Your task to perform on an android device: Search for "apple airpods pro" on target, select the first entry, and add it to the cart. Image 0: 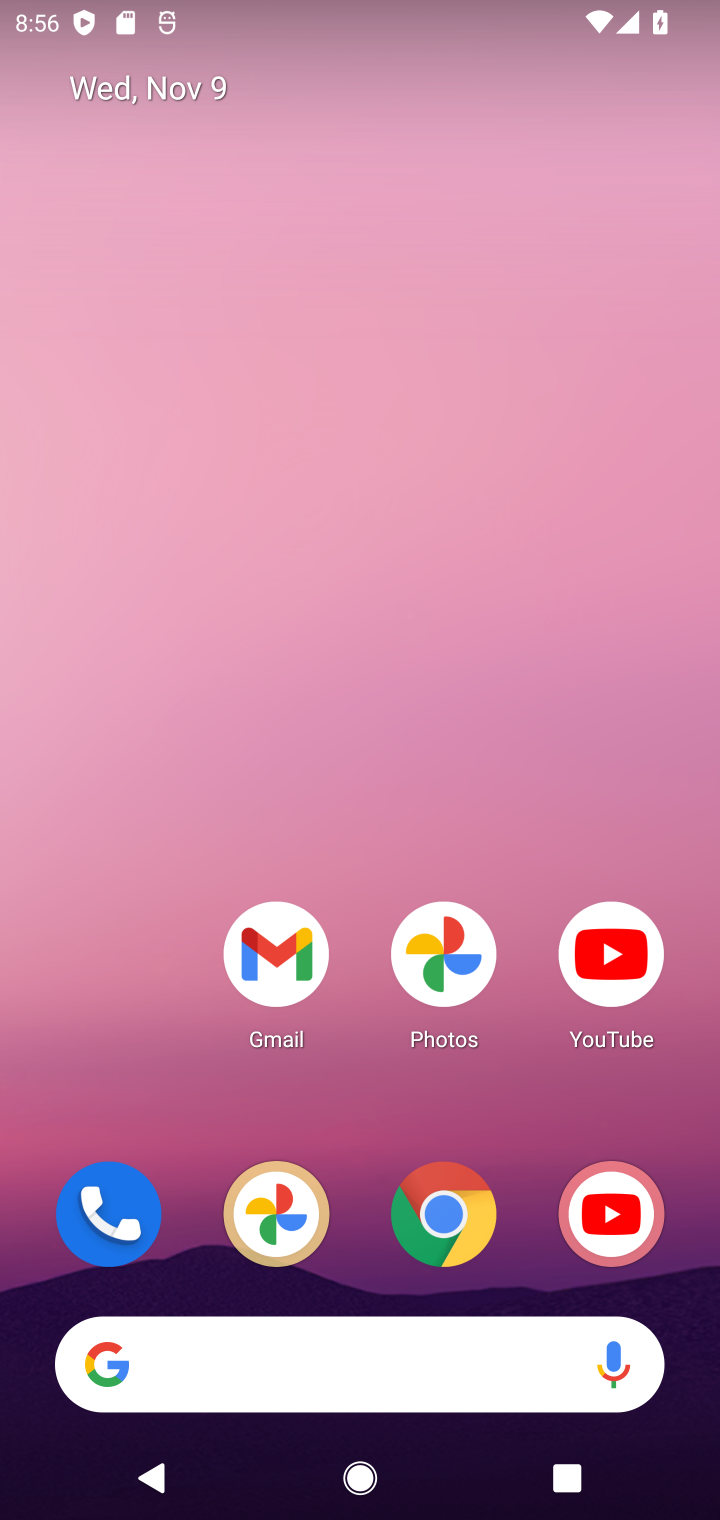
Step 0: drag from (384, 1106) to (411, 92)
Your task to perform on an android device: Search for "apple airpods pro" on target, select the first entry, and add it to the cart. Image 1: 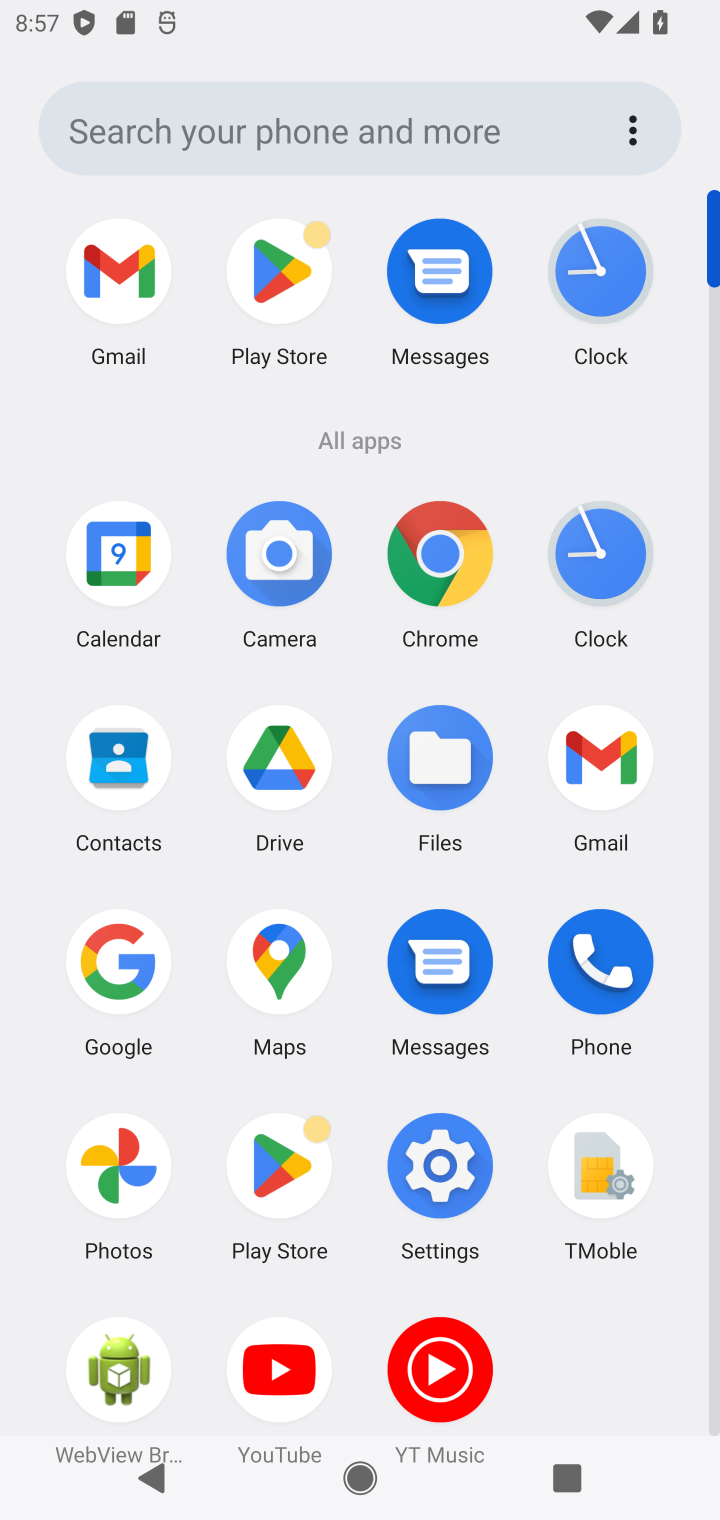
Step 1: click (448, 561)
Your task to perform on an android device: Search for "apple airpods pro" on target, select the first entry, and add it to the cart. Image 2: 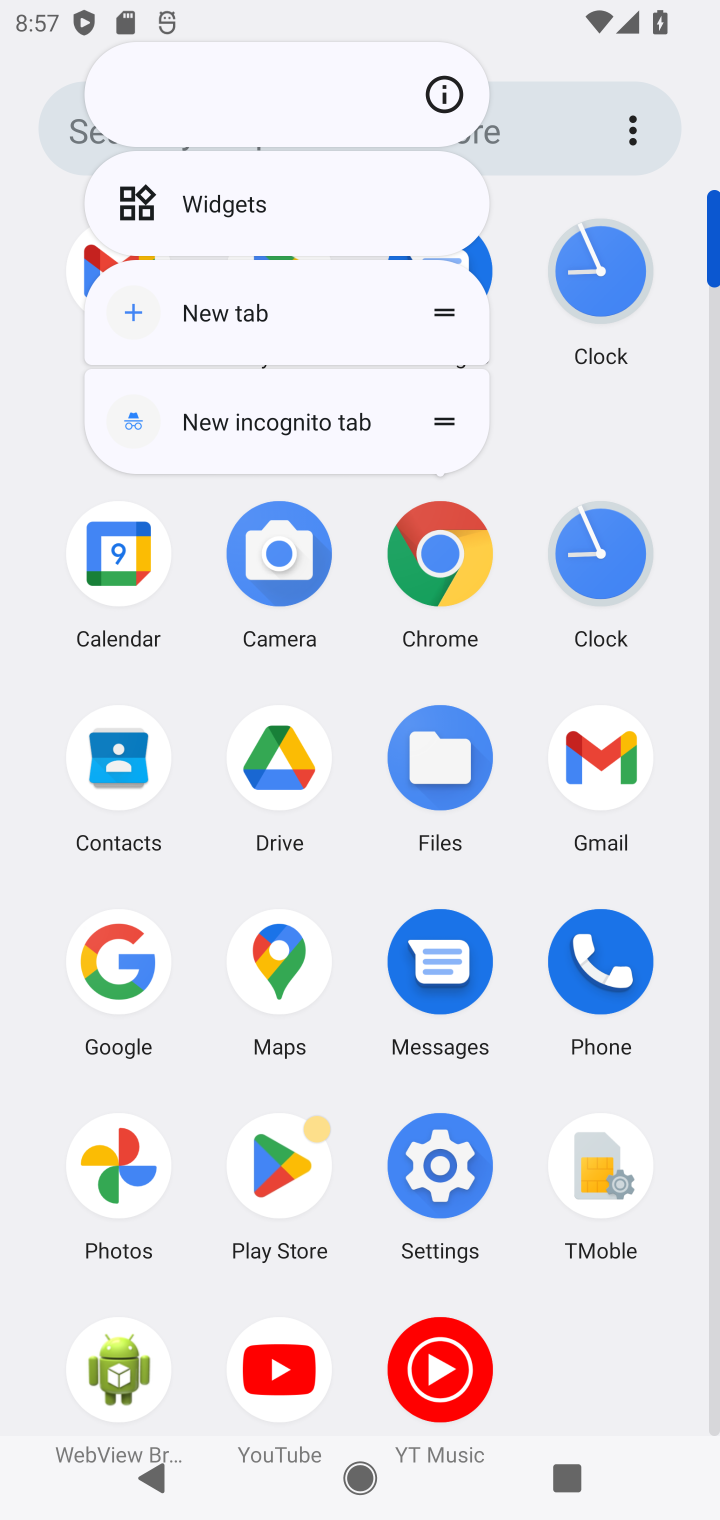
Step 2: click (441, 541)
Your task to perform on an android device: Search for "apple airpods pro" on target, select the first entry, and add it to the cart. Image 3: 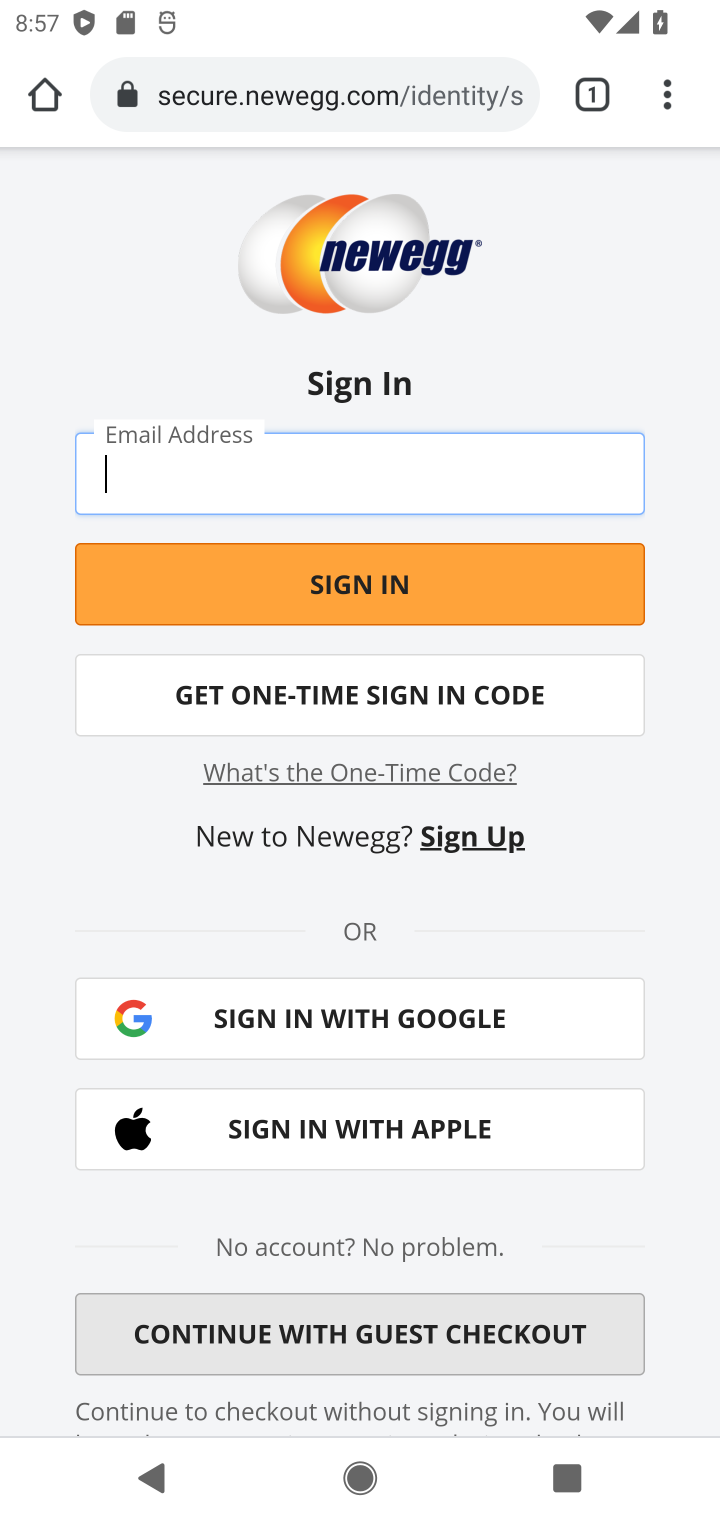
Step 3: click (448, 85)
Your task to perform on an android device: Search for "apple airpods pro" on target, select the first entry, and add it to the cart. Image 4: 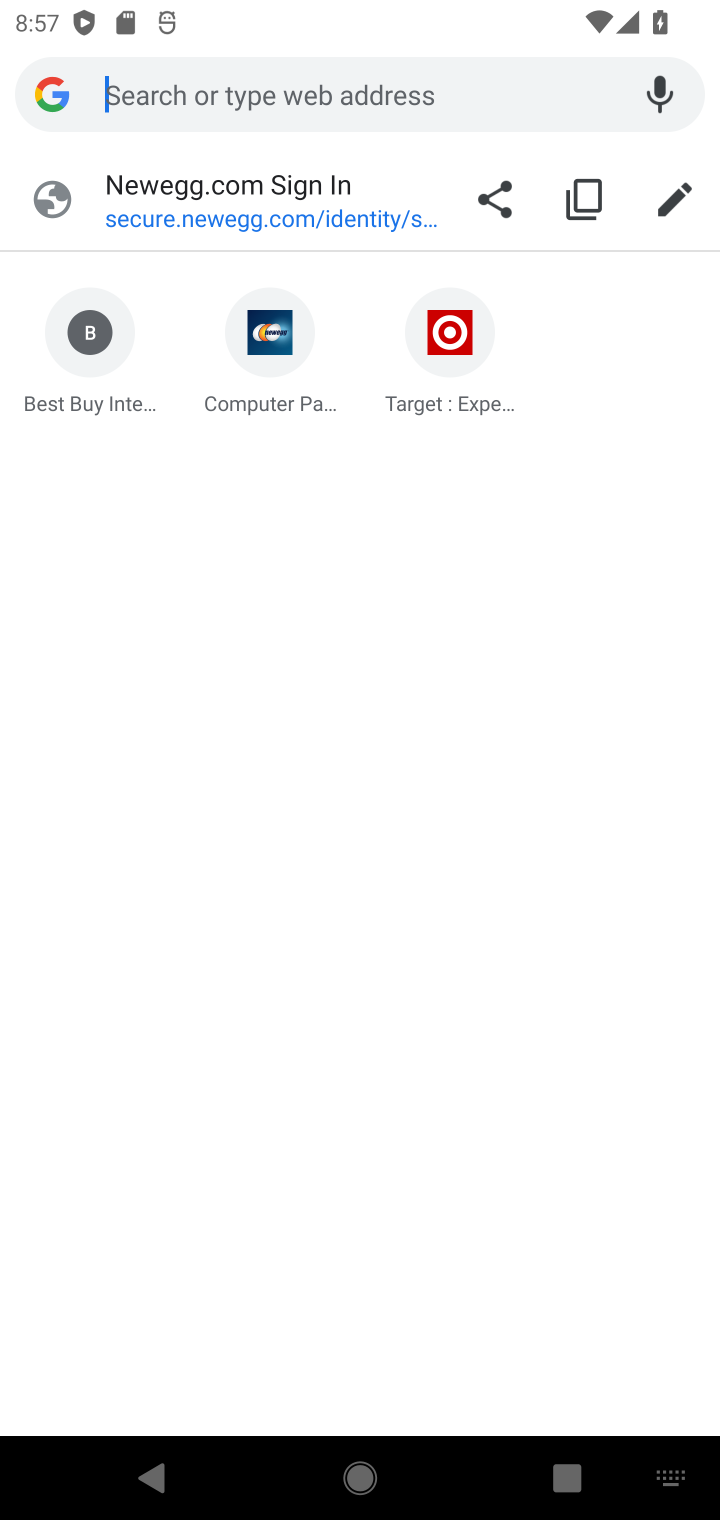
Step 4: type "target.com"
Your task to perform on an android device: Search for "apple airpods pro" on target, select the first entry, and add it to the cart. Image 5: 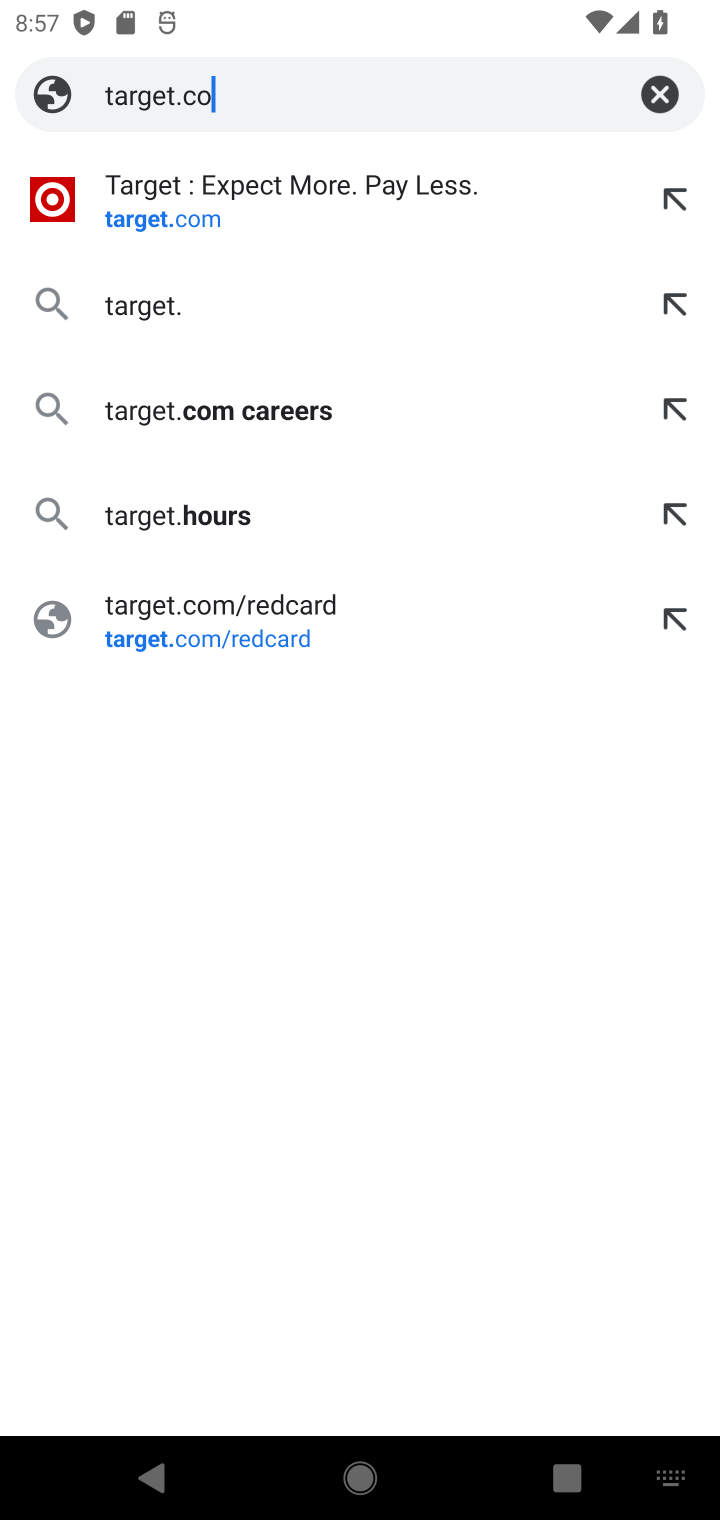
Step 5: press enter
Your task to perform on an android device: Search for "apple airpods pro" on target, select the first entry, and add it to the cart. Image 6: 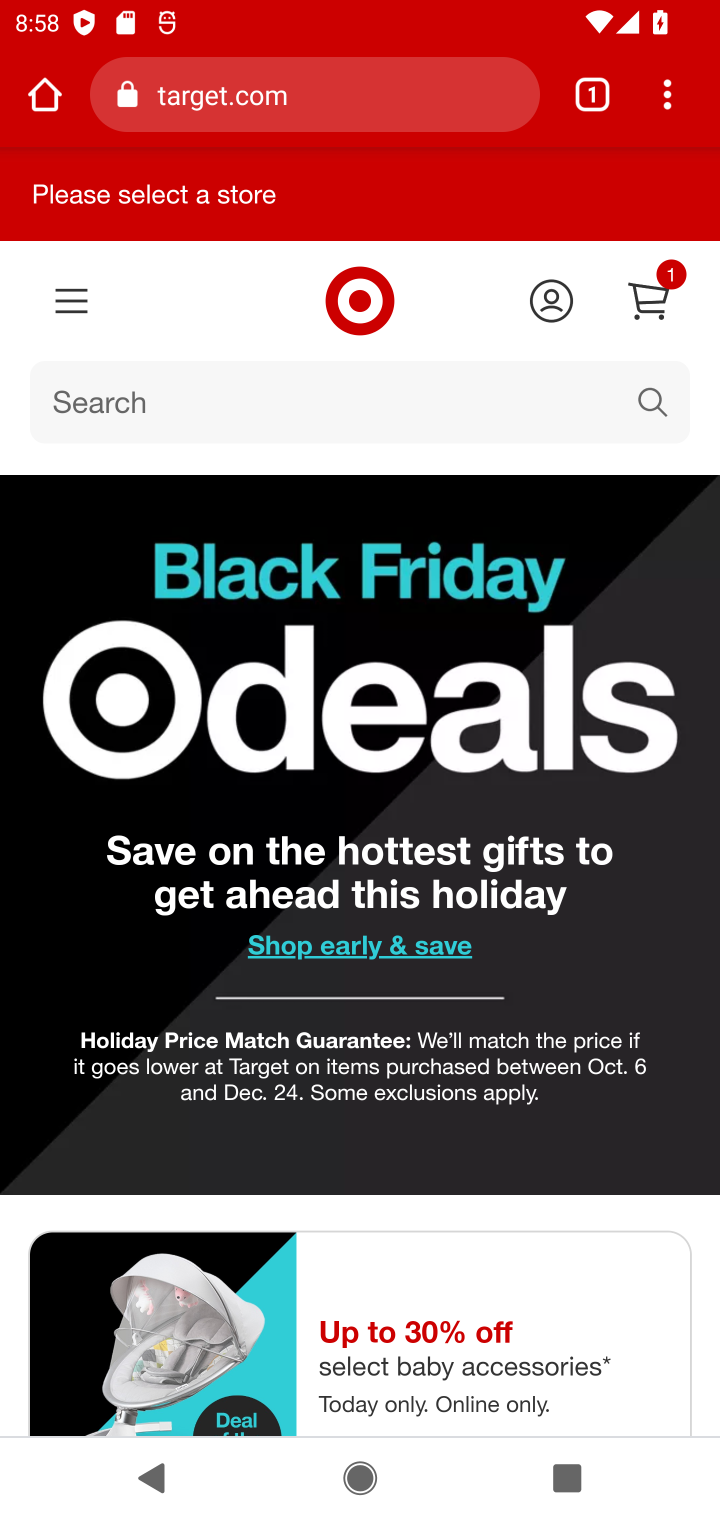
Step 6: drag from (473, 1032) to (482, 171)
Your task to perform on an android device: Search for "apple airpods pro" on target, select the first entry, and add it to the cart. Image 7: 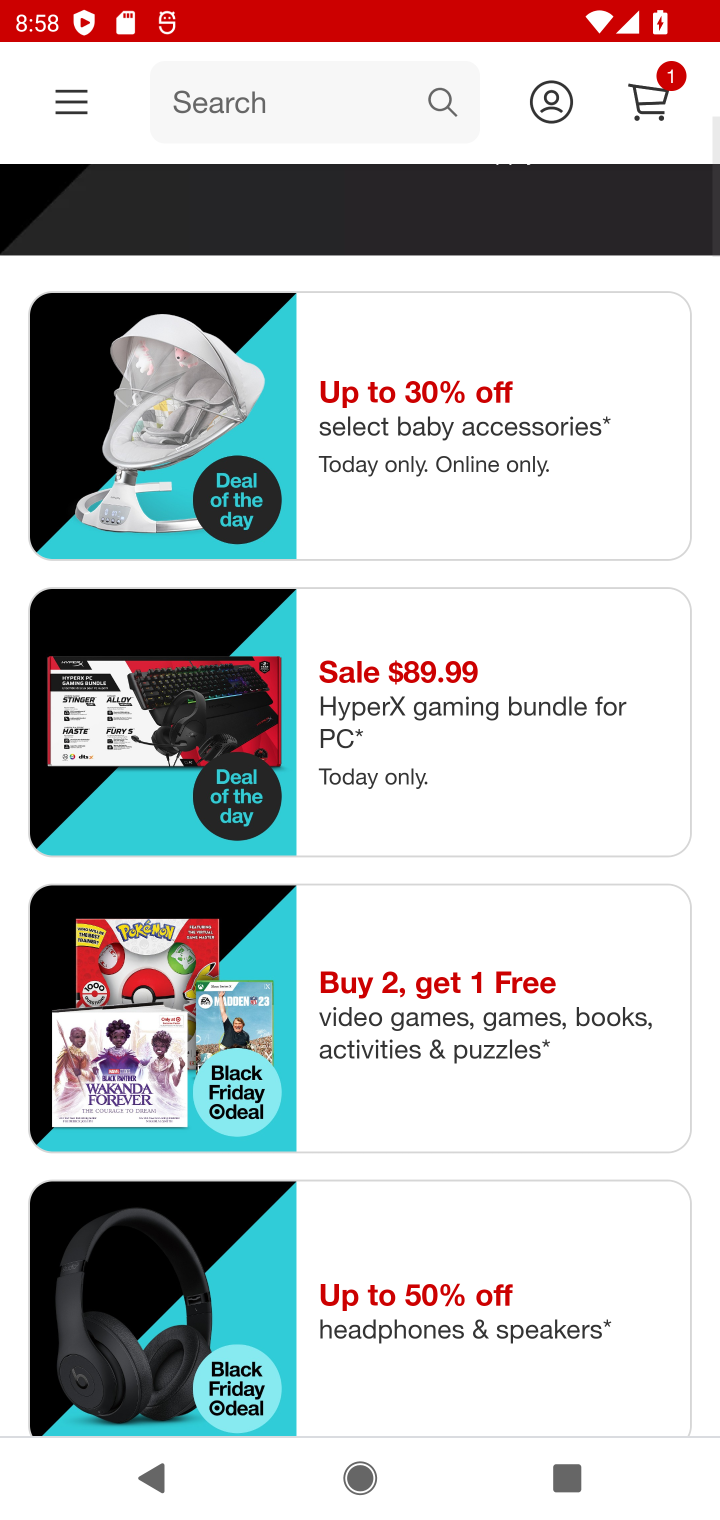
Step 7: drag from (479, 844) to (461, 1279)
Your task to perform on an android device: Search for "apple airpods pro" on target, select the first entry, and add it to the cart. Image 8: 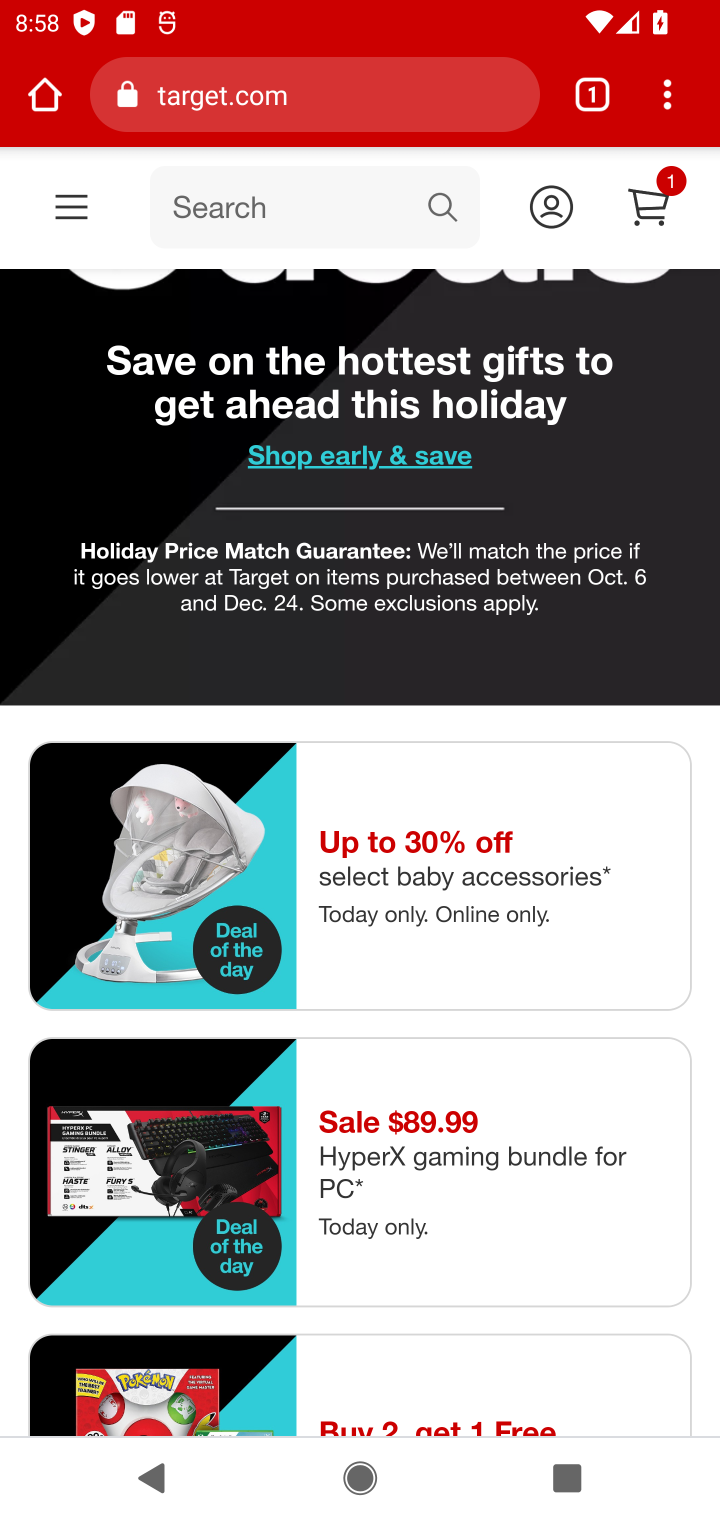
Step 8: drag from (393, 986) to (435, 204)
Your task to perform on an android device: Search for "apple airpods pro" on target, select the first entry, and add it to the cart. Image 9: 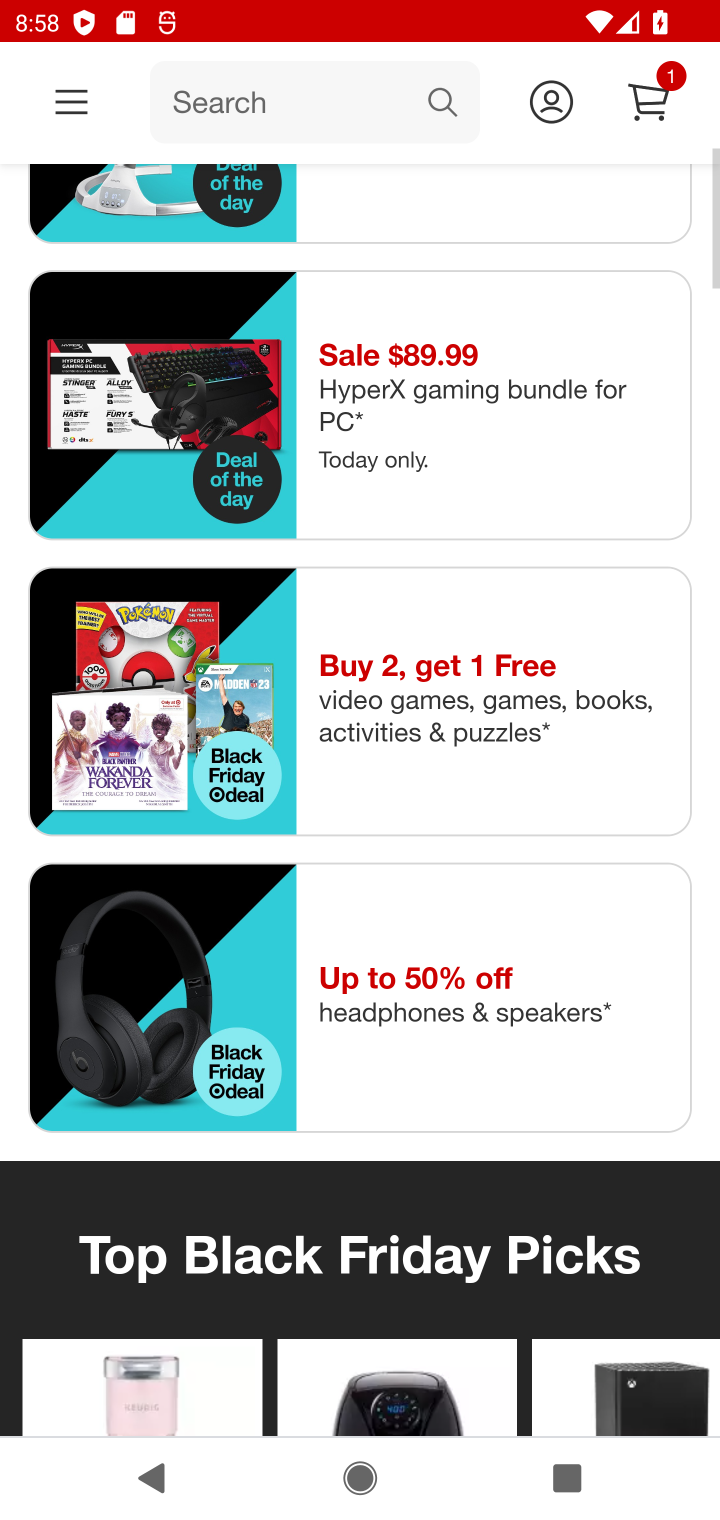
Step 9: drag from (473, 608) to (530, 1359)
Your task to perform on an android device: Search for "apple airpods pro" on target, select the first entry, and add it to the cart. Image 10: 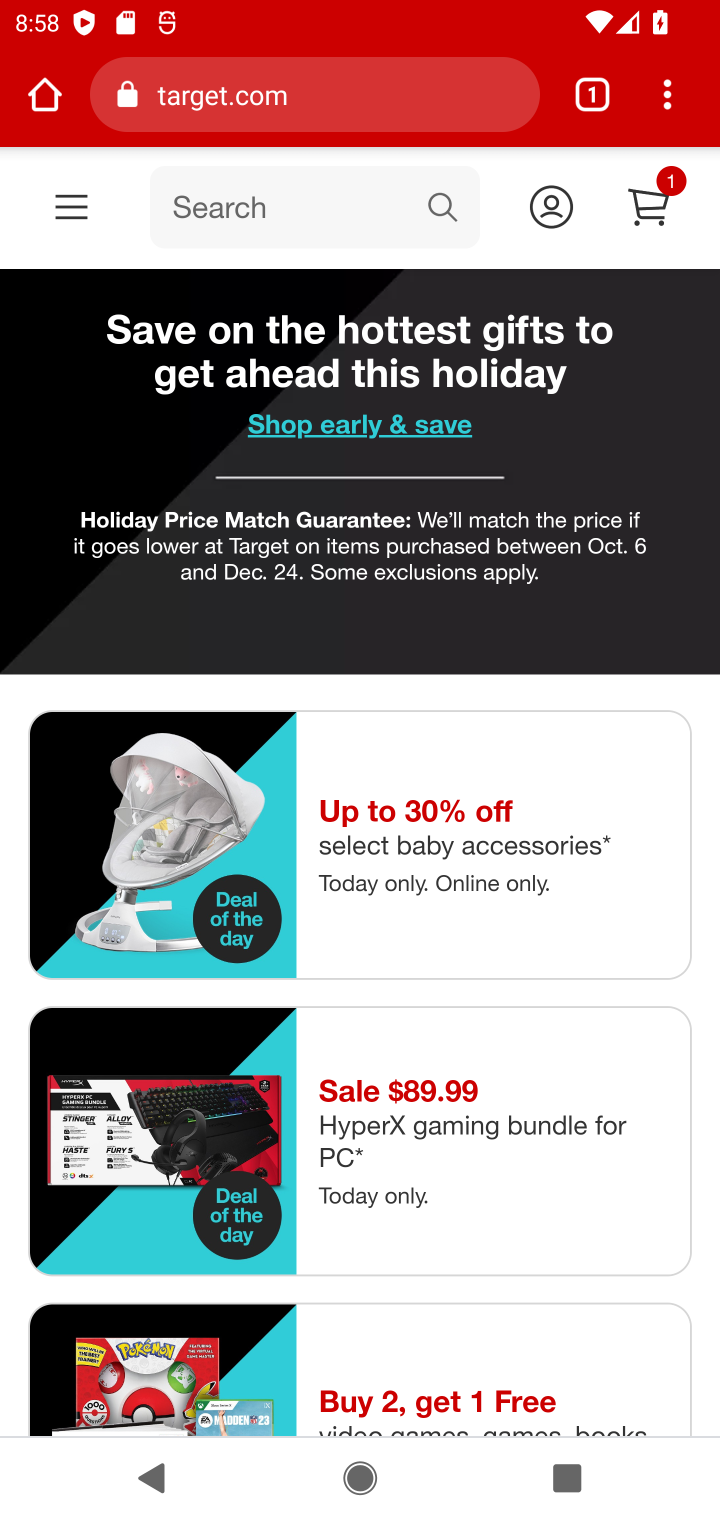
Step 10: click (345, 205)
Your task to perform on an android device: Search for "apple airpods pro" on target, select the first entry, and add it to the cart. Image 11: 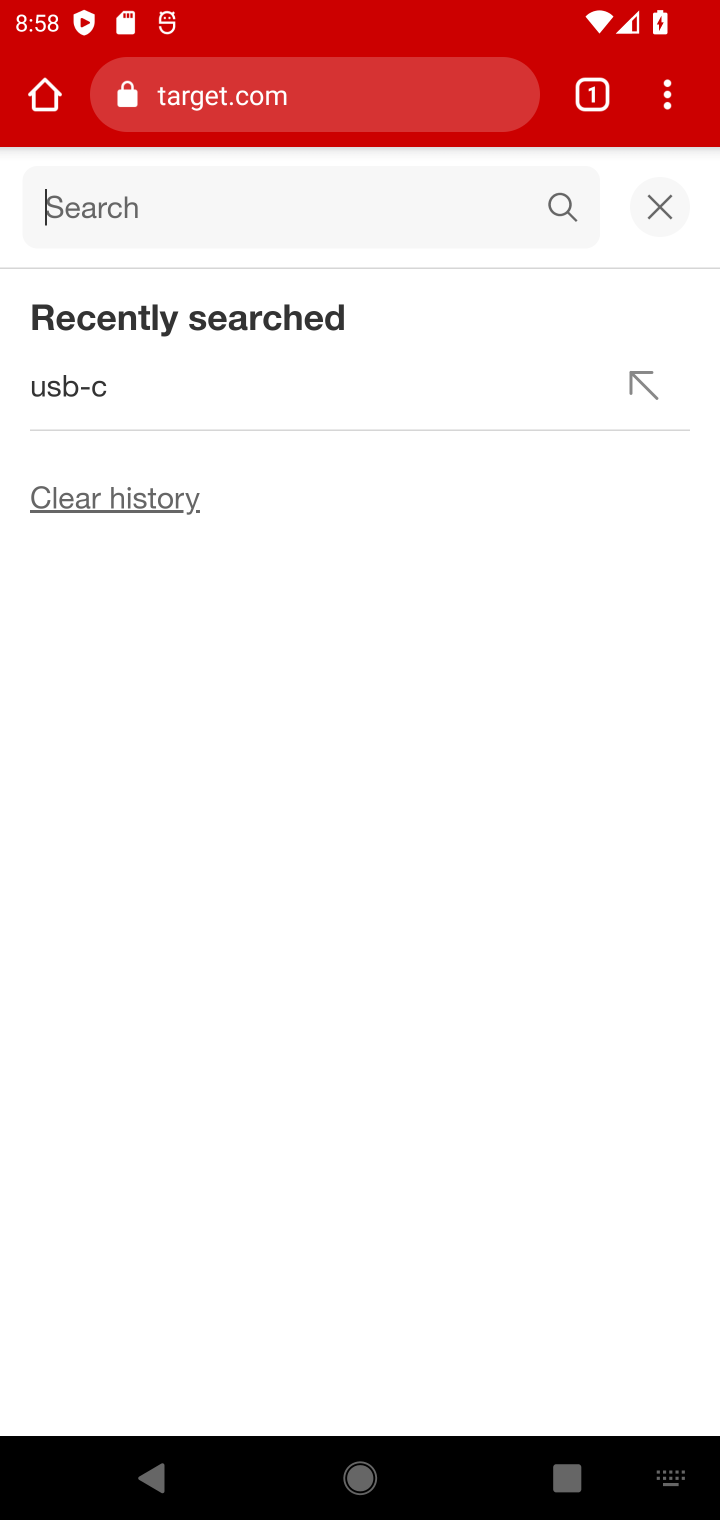
Step 11: type "apple airpods pr"
Your task to perform on an android device: Search for "apple airpods pro" on target, select the first entry, and add it to the cart. Image 12: 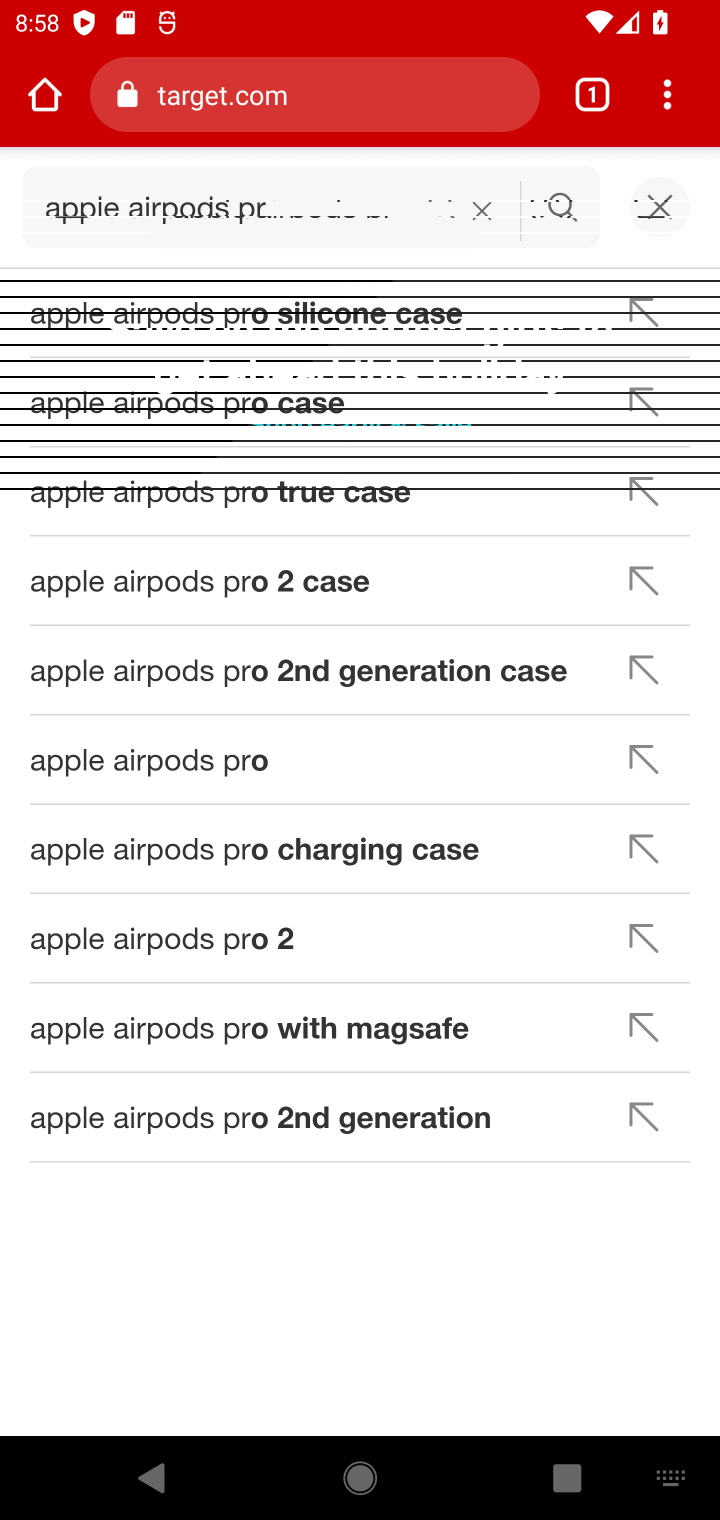
Step 12: type "o"
Your task to perform on an android device: Search for "apple airpods pro" on target, select the first entry, and add it to the cart. Image 13: 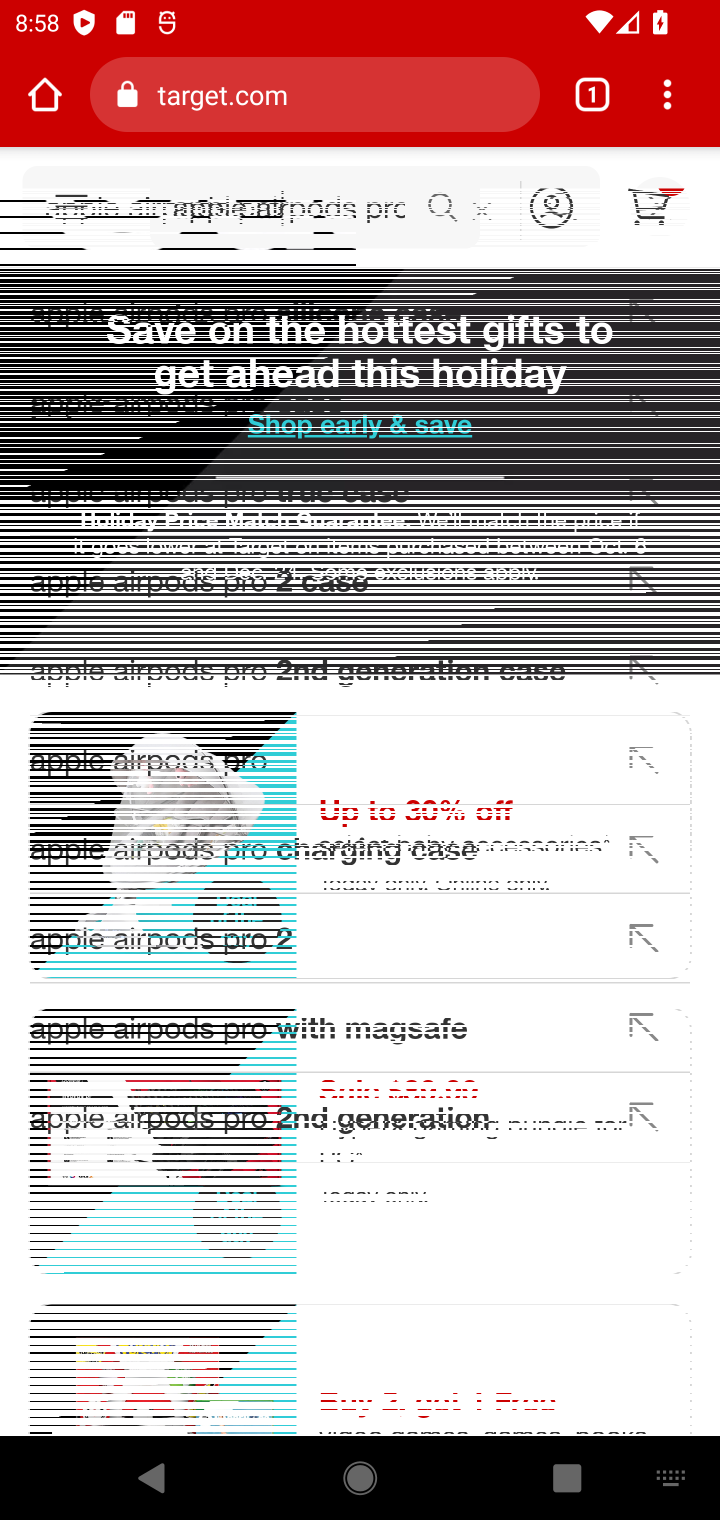
Step 13: press enter
Your task to perform on an android device: Search for "apple airpods pro" on target, select the first entry, and add it to the cart. Image 14: 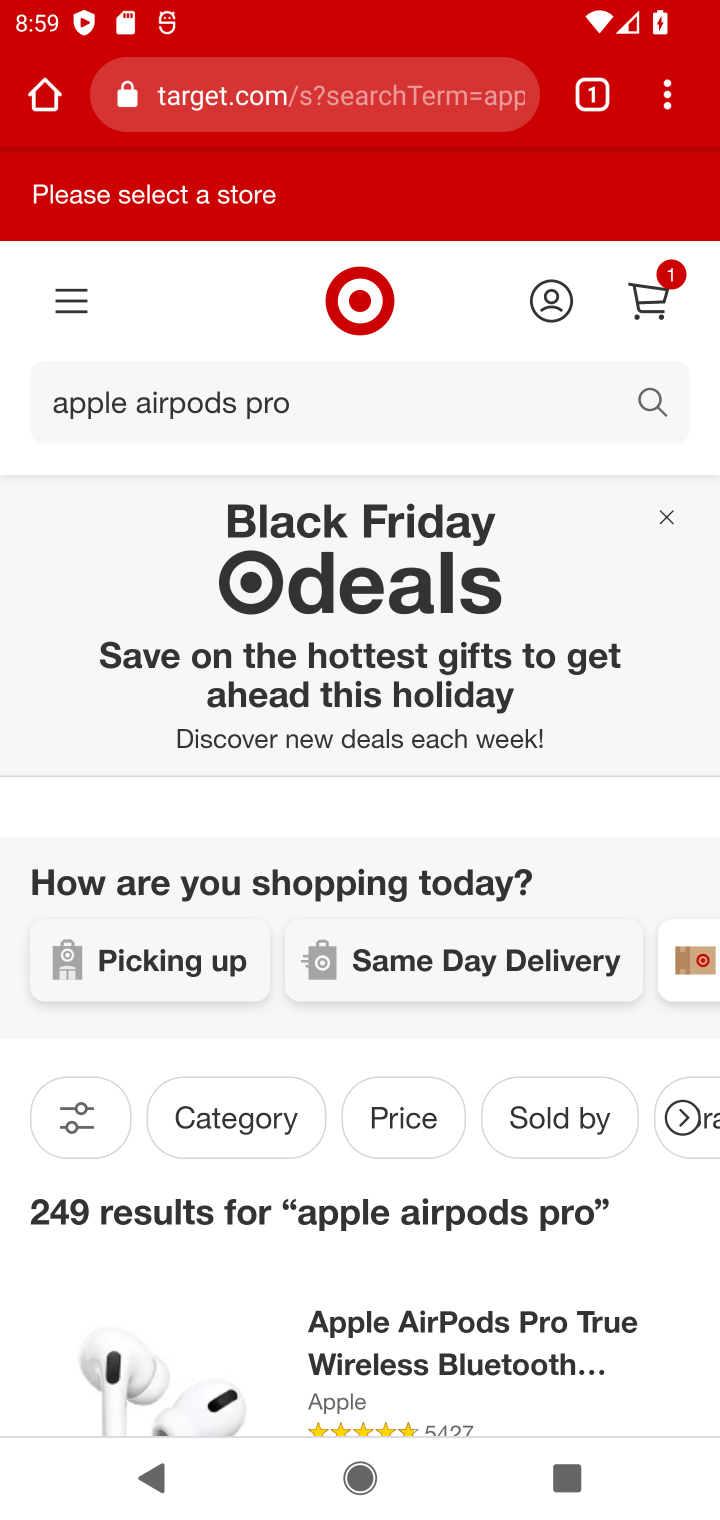
Step 14: drag from (414, 1291) to (440, 574)
Your task to perform on an android device: Search for "apple airpods pro" on target, select the first entry, and add it to the cart. Image 15: 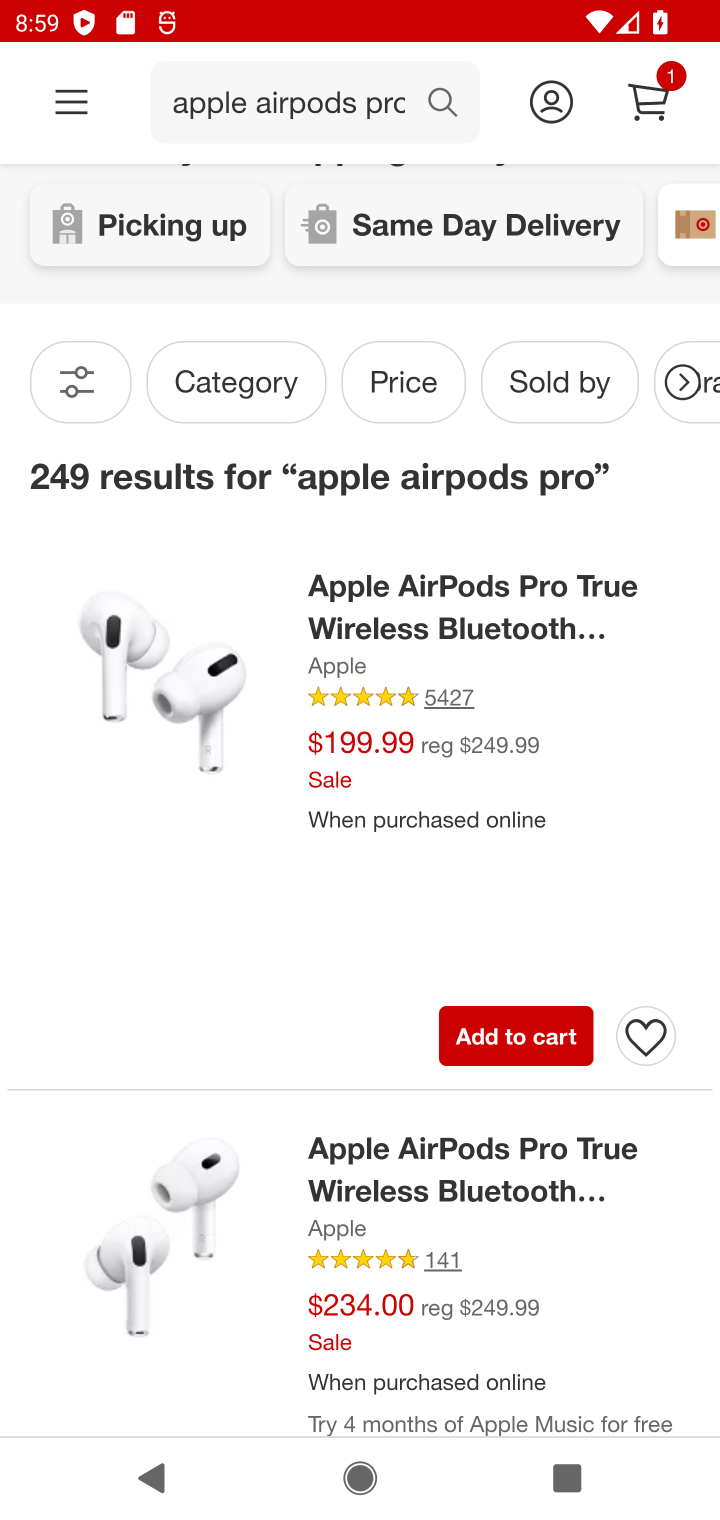
Step 15: click (528, 1041)
Your task to perform on an android device: Search for "apple airpods pro" on target, select the first entry, and add it to the cart. Image 16: 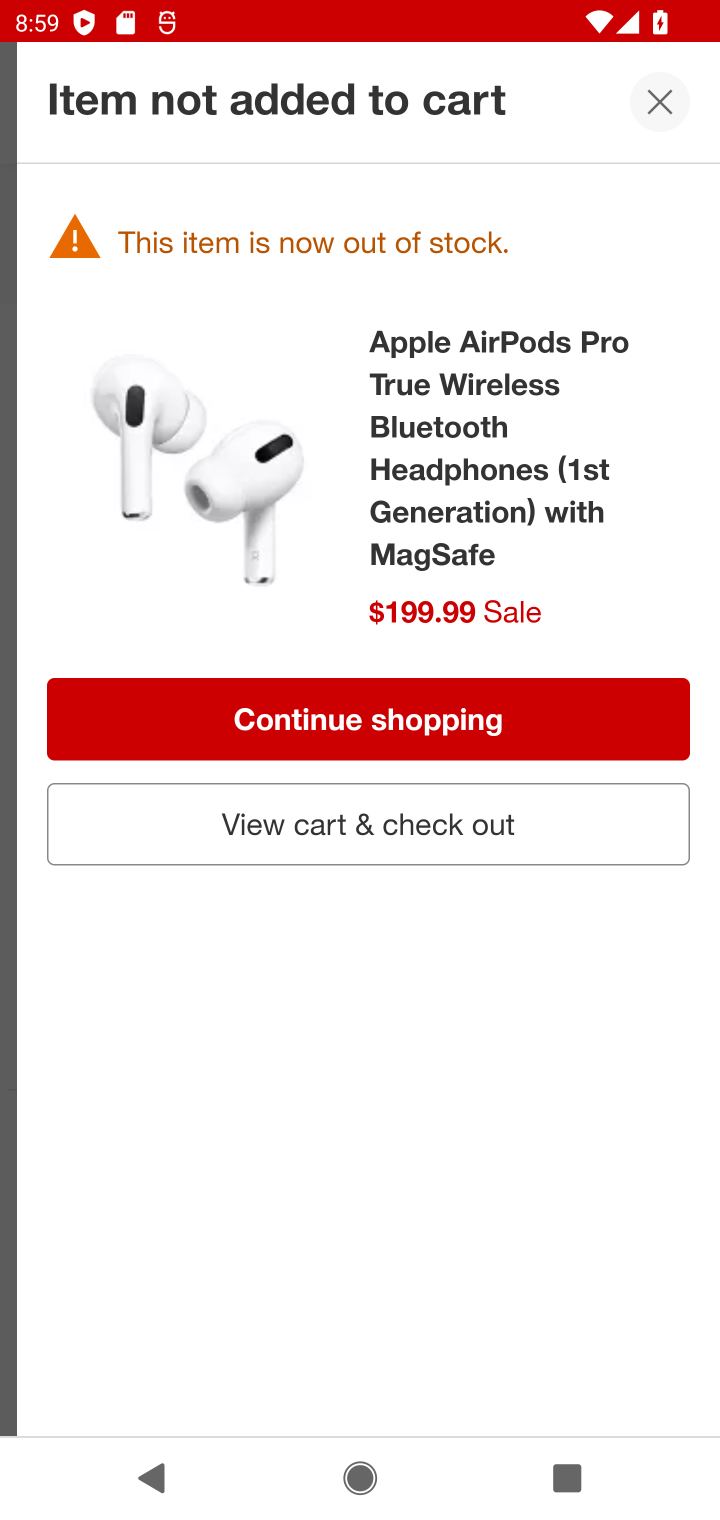
Step 16: task complete